Your task to perform on an android device: find which apps use the phone's location Image 0: 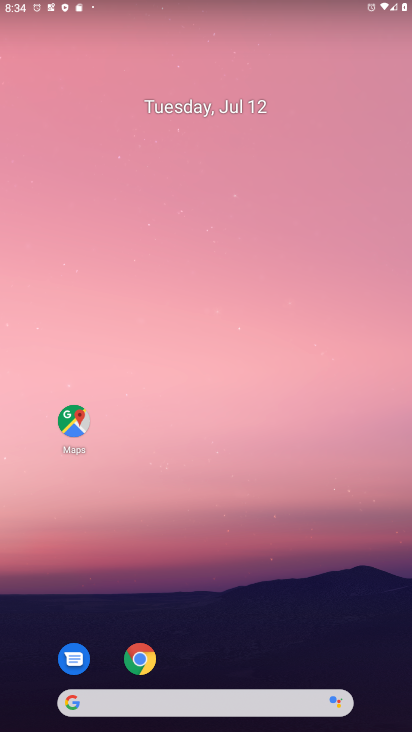
Step 0: drag from (192, 698) to (323, 138)
Your task to perform on an android device: find which apps use the phone's location Image 1: 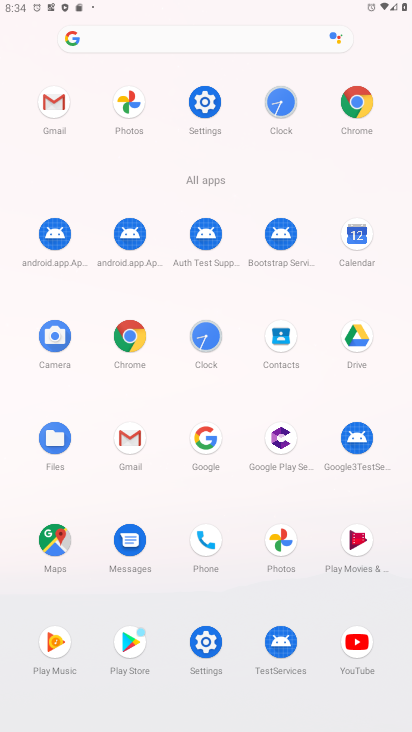
Step 1: click (205, 105)
Your task to perform on an android device: find which apps use the phone's location Image 2: 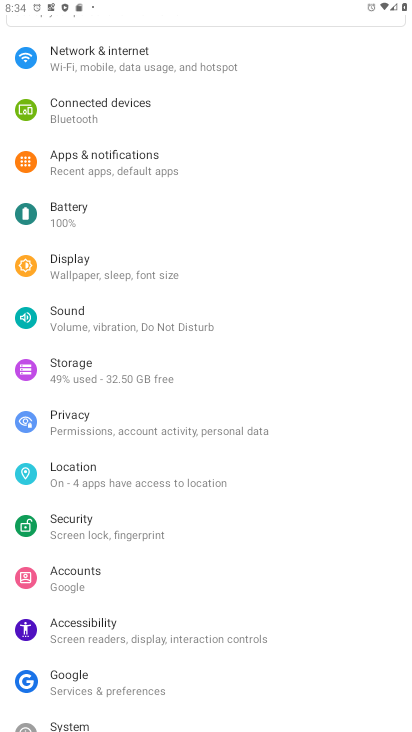
Step 2: click (92, 481)
Your task to perform on an android device: find which apps use the phone's location Image 3: 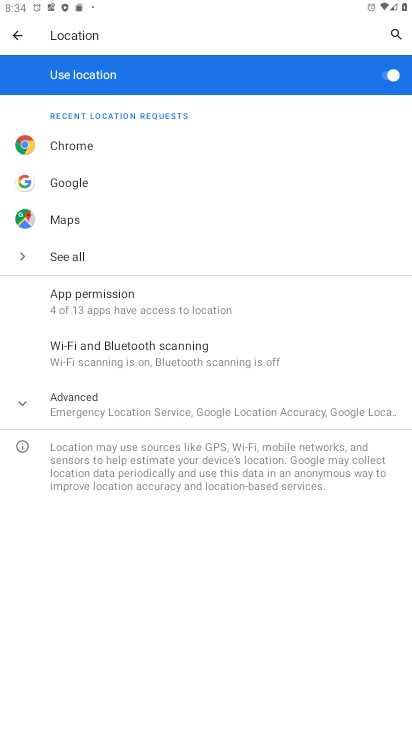
Step 3: click (112, 305)
Your task to perform on an android device: find which apps use the phone's location Image 4: 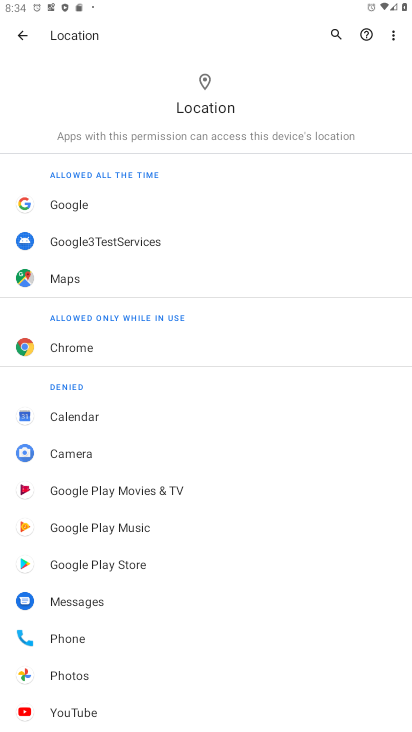
Step 4: click (66, 279)
Your task to perform on an android device: find which apps use the phone's location Image 5: 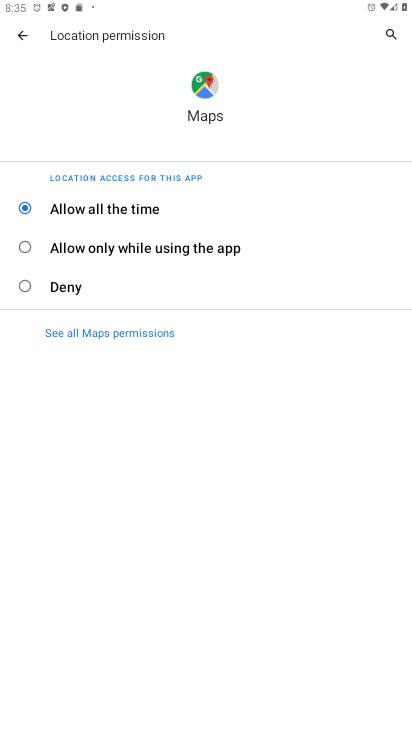
Step 5: task complete